Your task to perform on an android device: Do I have any events this weekend? Image 0: 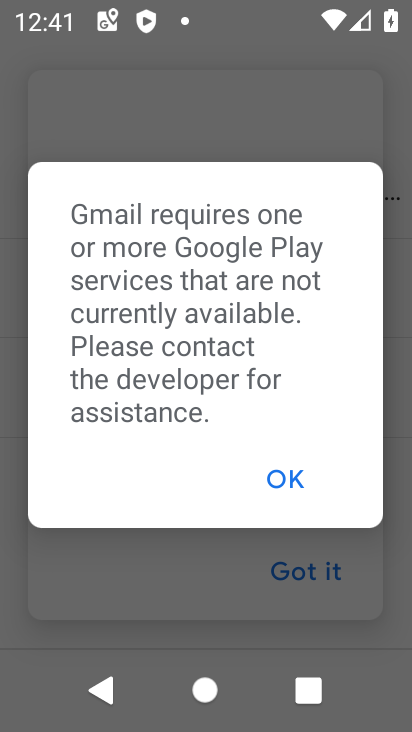
Step 0: press home button
Your task to perform on an android device: Do I have any events this weekend? Image 1: 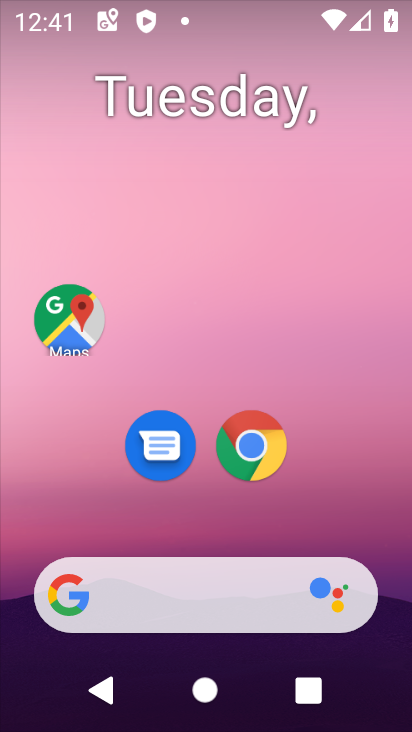
Step 1: drag from (374, 351) to (381, 52)
Your task to perform on an android device: Do I have any events this weekend? Image 2: 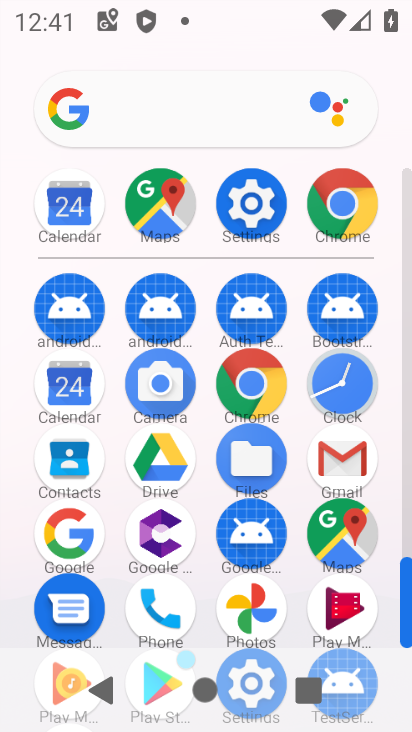
Step 2: click (88, 384)
Your task to perform on an android device: Do I have any events this weekend? Image 3: 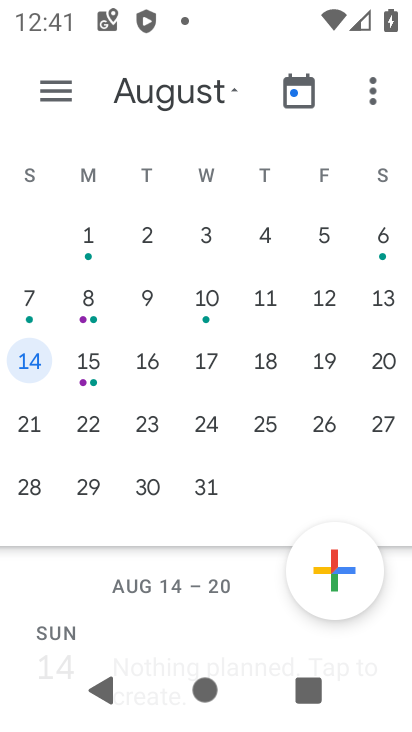
Step 3: click (320, 362)
Your task to perform on an android device: Do I have any events this weekend? Image 4: 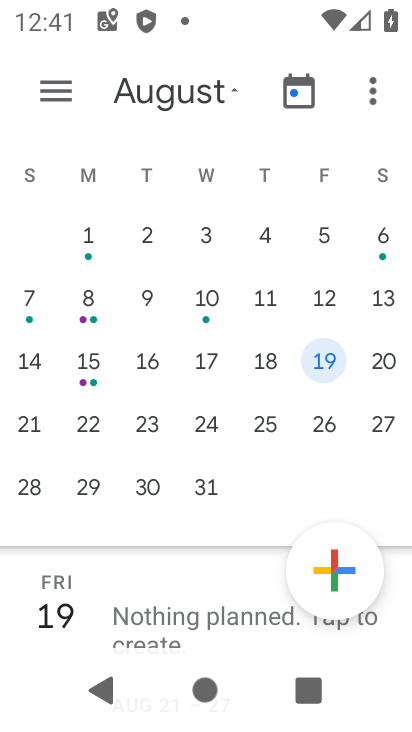
Step 4: task complete